Your task to perform on an android device: clear history in the chrome app Image 0: 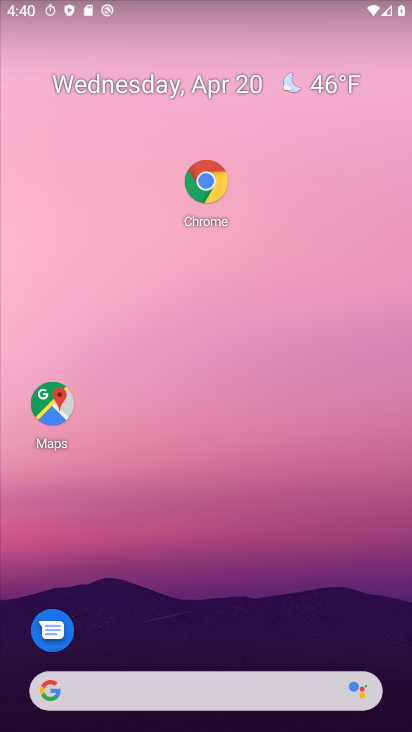
Step 0: drag from (167, 665) to (242, 257)
Your task to perform on an android device: clear history in the chrome app Image 1: 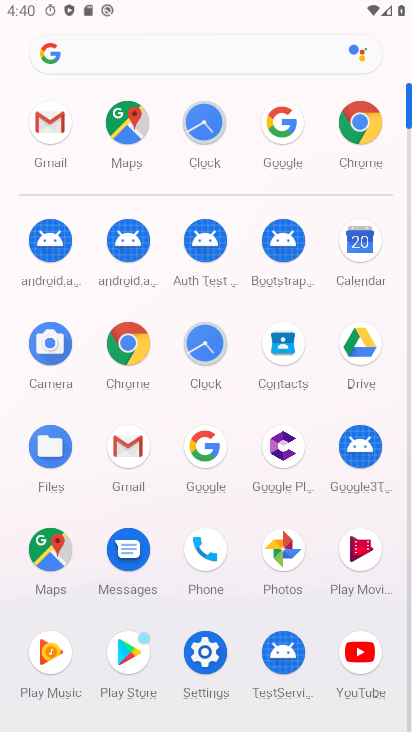
Step 1: click (362, 118)
Your task to perform on an android device: clear history in the chrome app Image 2: 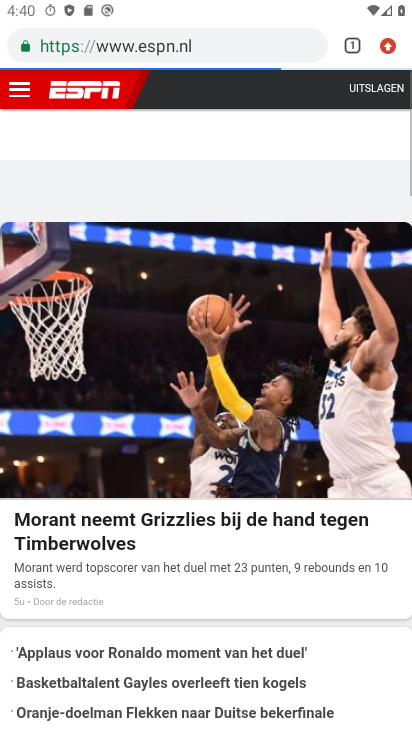
Step 2: click (388, 47)
Your task to perform on an android device: clear history in the chrome app Image 3: 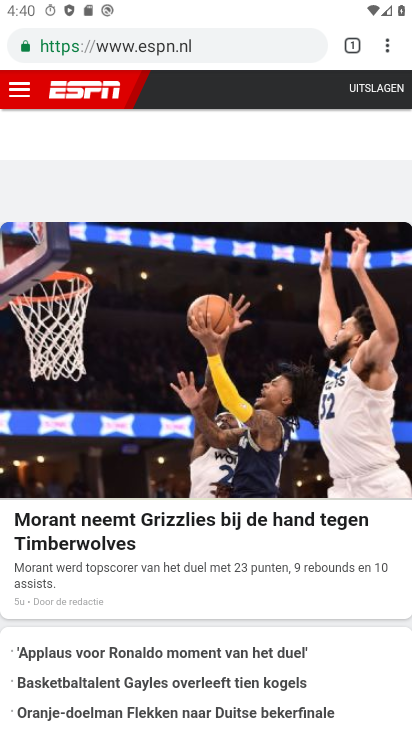
Step 3: click (388, 47)
Your task to perform on an android device: clear history in the chrome app Image 4: 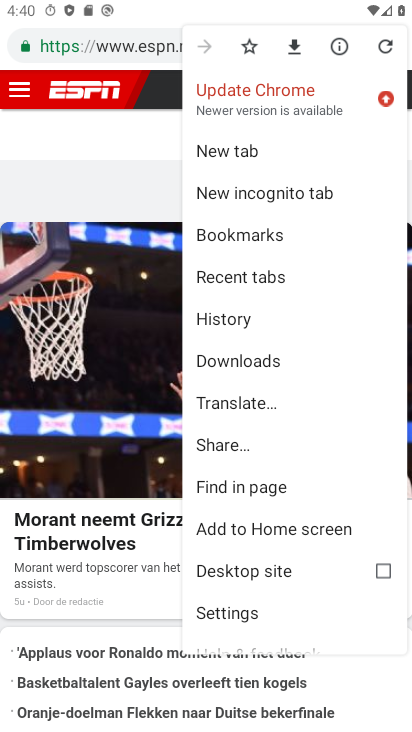
Step 4: click (241, 325)
Your task to perform on an android device: clear history in the chrome app Image 5: 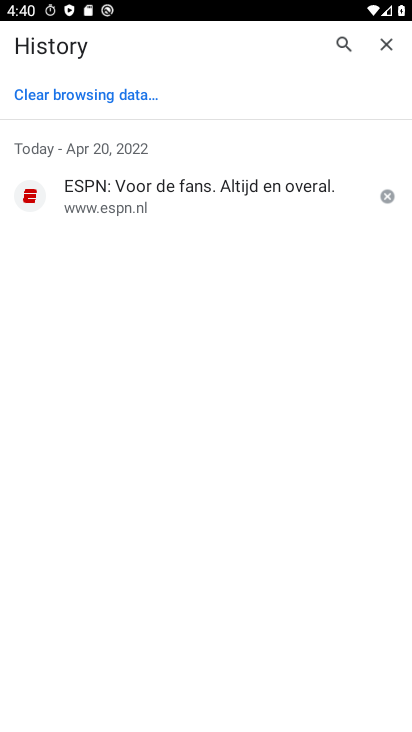
Step 5: click (101, 94)
Your task to perform on an android device: clear history in the chrome app Image 6: 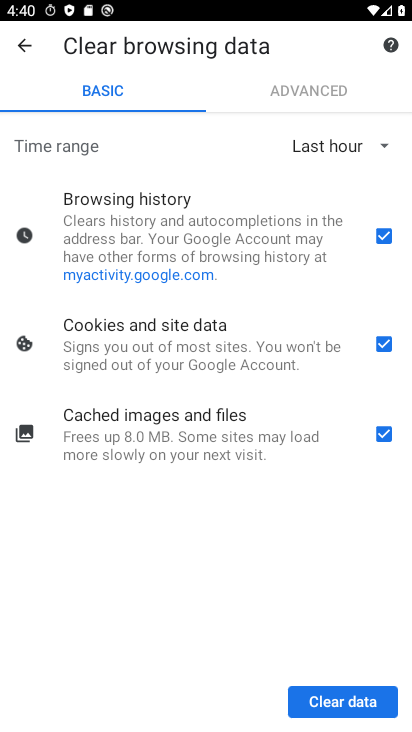
Step 6: click (333, 701)
Your task to perform on an android device: clear history in the chrome app Image 7: 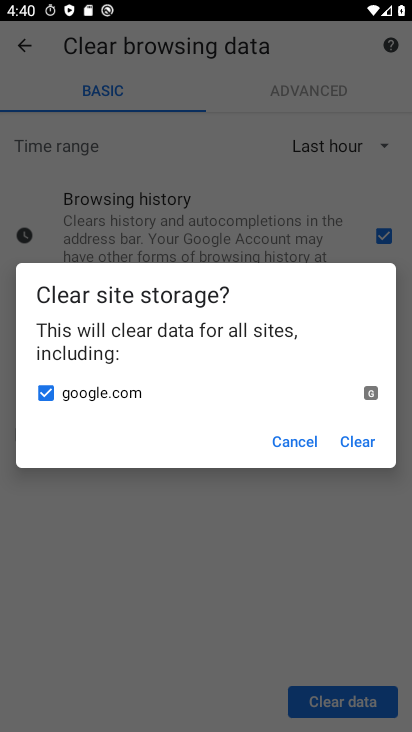
Step 7: click (370, 441)
Your task to perform on an android device: clear history in the chrome app Image 8: 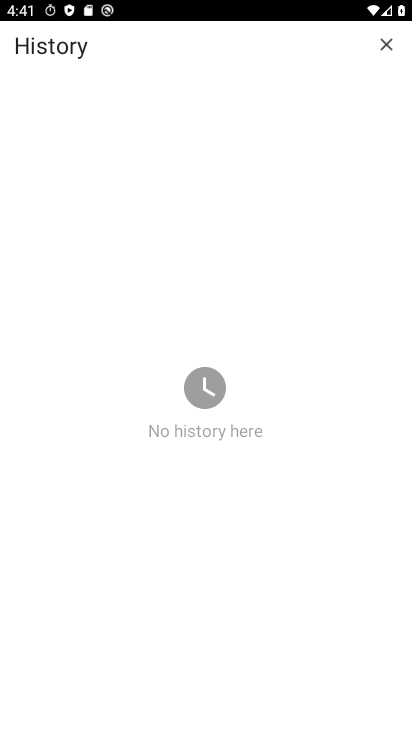
Step 8: task complete